Your task to perform on an android device: set the stopwatch Image 0: 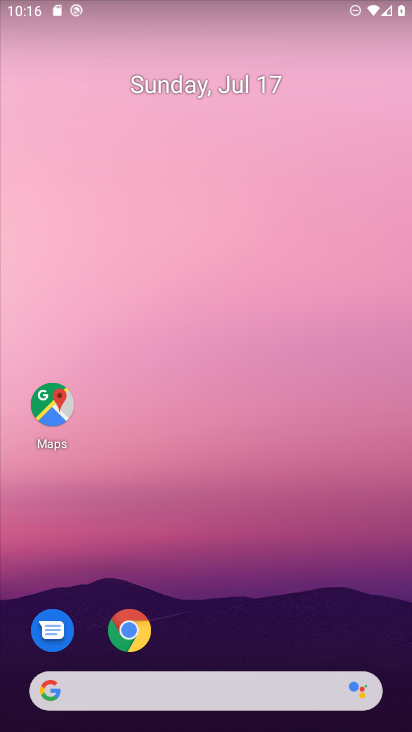
Step 0: drag from (258, 648) to (250, 198)
Your task to perform on an android device: set the stopwatch Image 1: 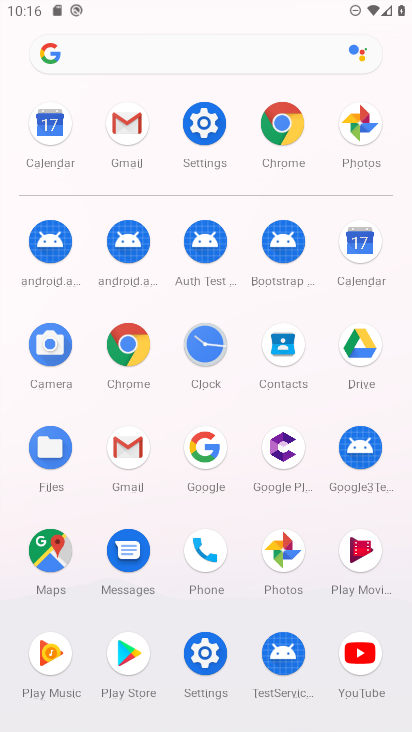
Step 1: click (192, 347)
Your task to perform on an android device: set the stopwatch Image 2: 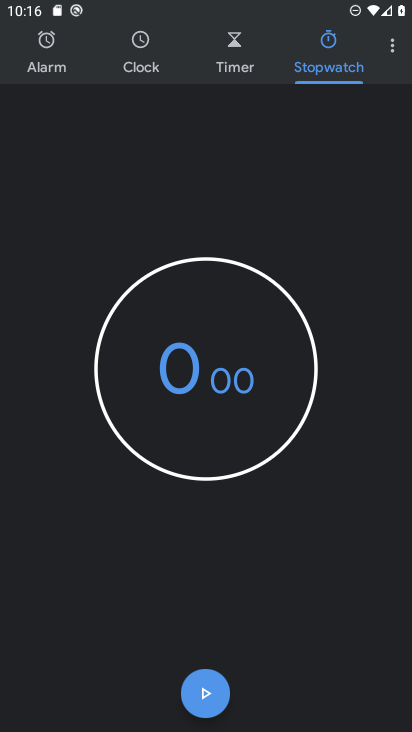
Step 2: click (206, 689)
Your task to perform on an android device: set the stopwatch Image 3: 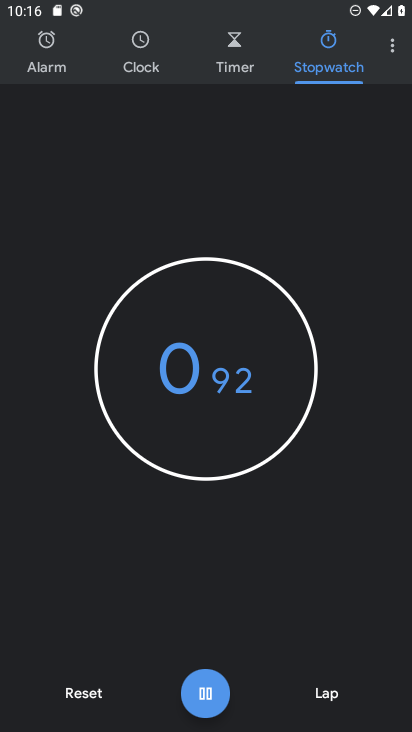
Step 3: click (206, 689)
Your task to perform on an android device: set the stopwatch Image 4: 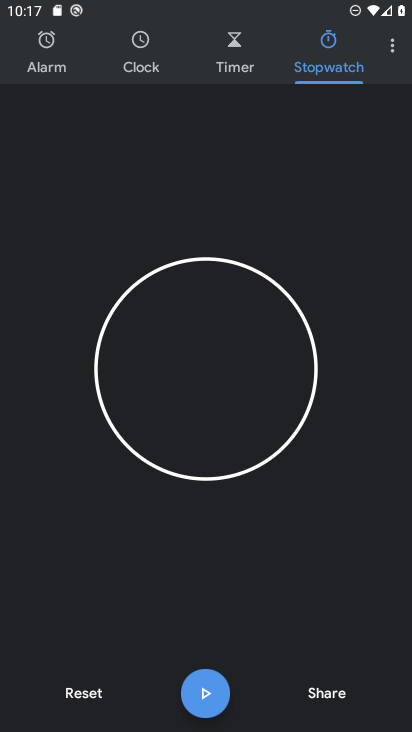
Step 4: task complete